Your task to perform on an android device: Go to battery settings Image 0: 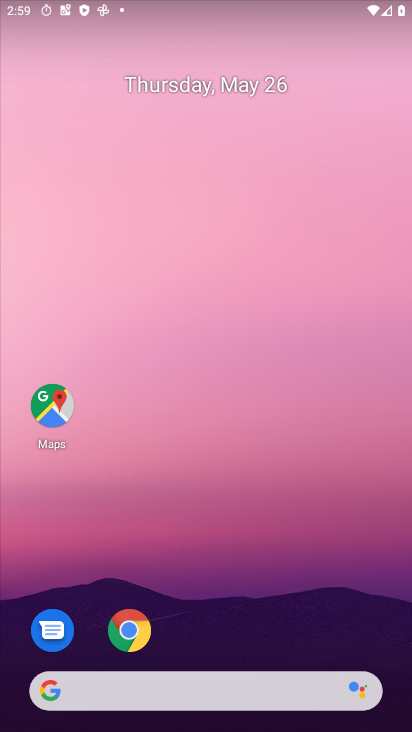
Step 0: drag from (201, 577) to (296, 41)
Your task to perform on an android device: Go to battery settings Image 1: 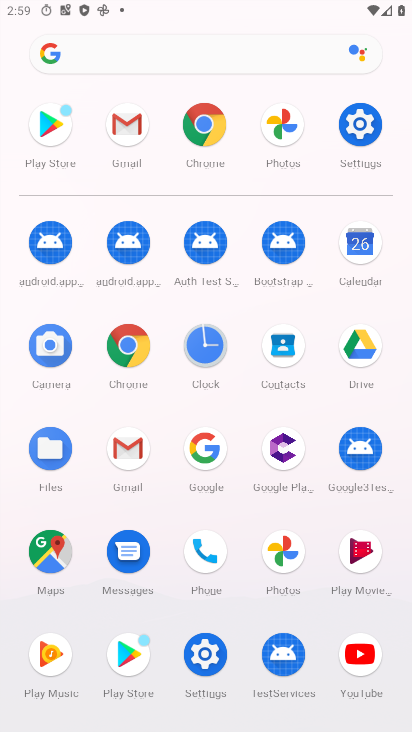
Step 1: click (370, 123)
Your task to perform on an android device: Go to battery settings Image 2: 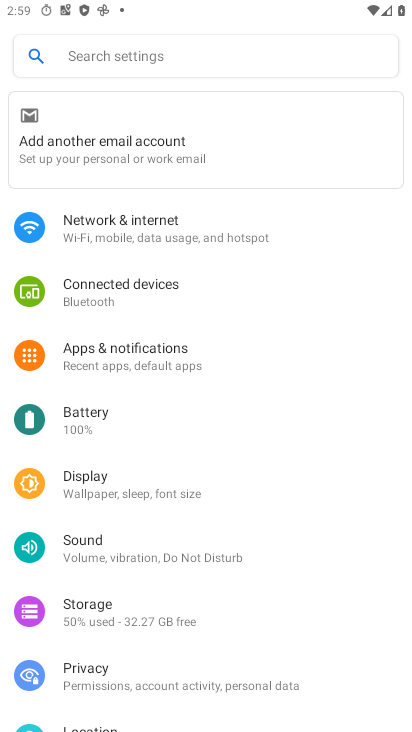
Step 2: click (84, 421)
Your task to perform on an android device: Go to battery settings Image 3: 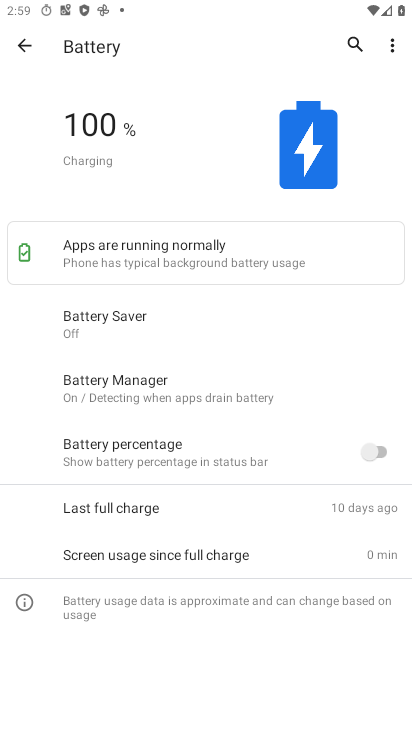
Step 3: task complete